Your task to perform on an android device: Show me popular videos on Youtube Image 0: 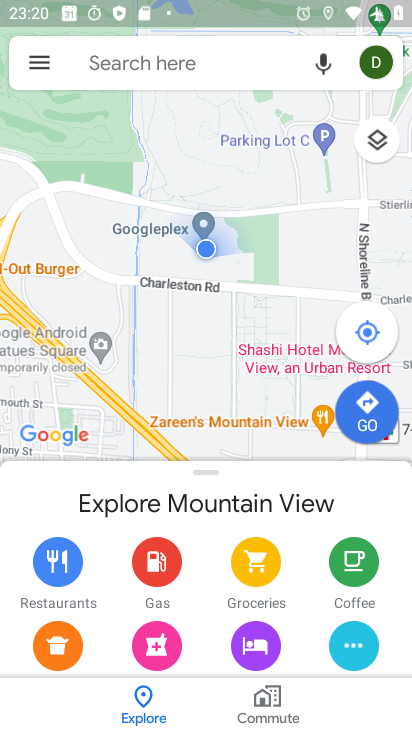
Step 0: press home button
Your task to perform on an android device: Show me popular videos on Youtube Image 1: 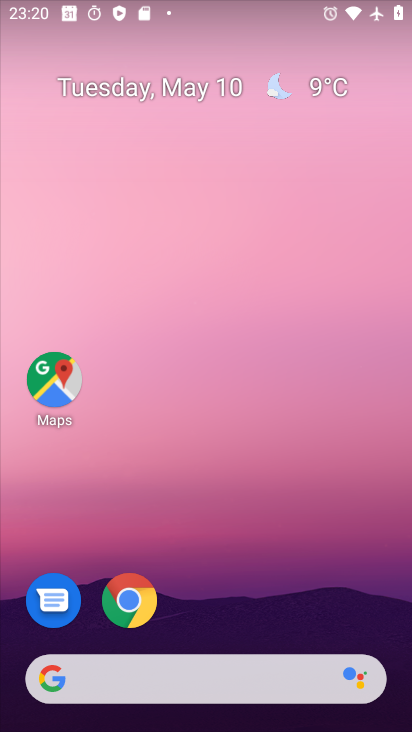
Step 1: drag from (318, 512) to (309, 30)
Your task to perform on an android device: Show me popular videos on Youtube Image 2: 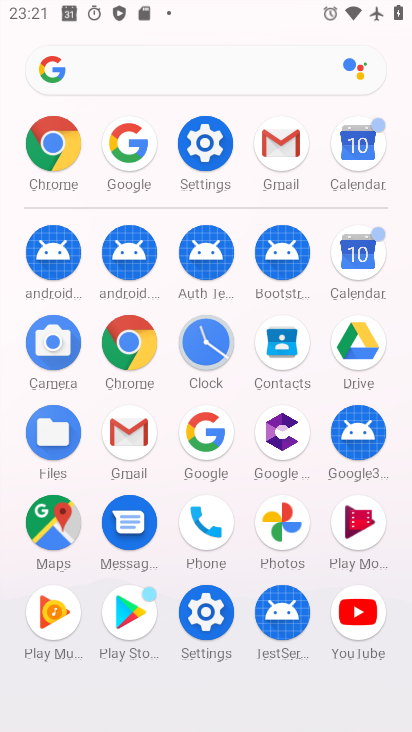
Step 2: click (360, 604)
Your task to perform on an android device: Show me popular videos on Youtube Image 3: 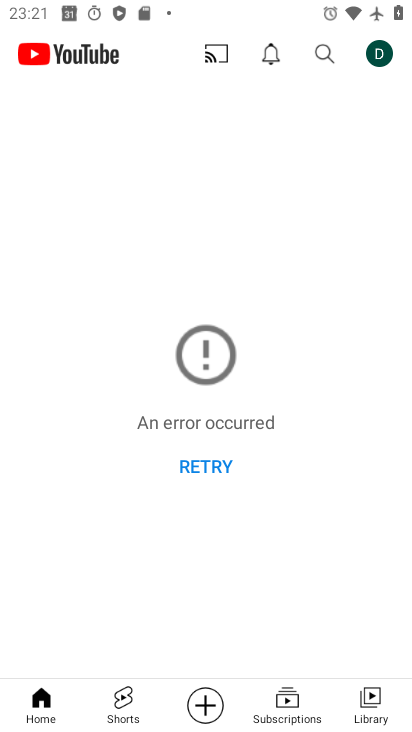
Step 3: click (342, 52)
Your task to perform on an android device: Show me popular videos on Youtube Image 4: 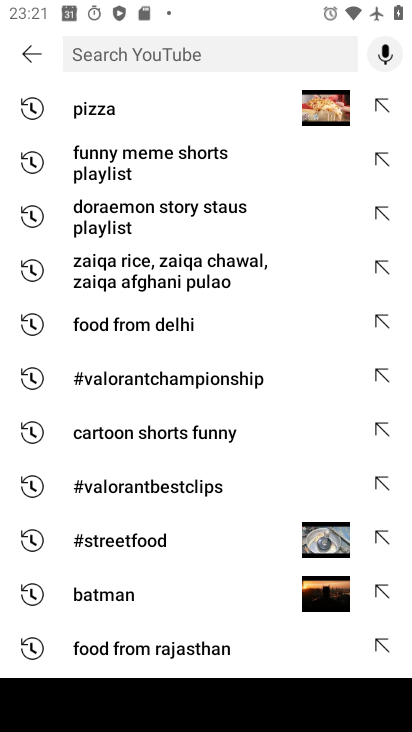
Step 4: type "popular videos"
Your task to perform on an android device: Show me popular videos on Youtube Image 5: 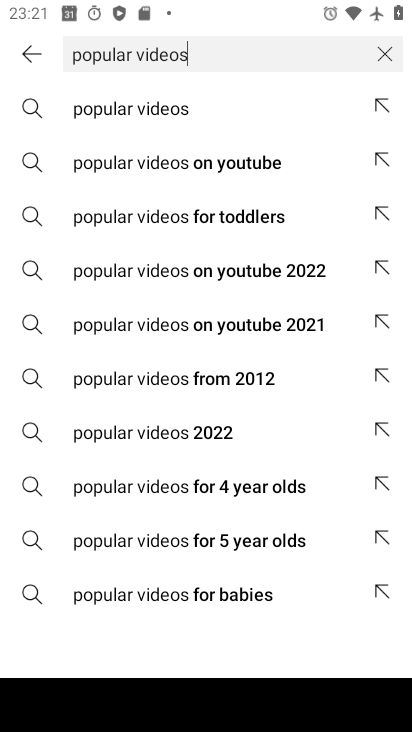
Step 5: click (173, 110)
Your task to perform on an android device: Show me popular videos on Youtube Image 6: 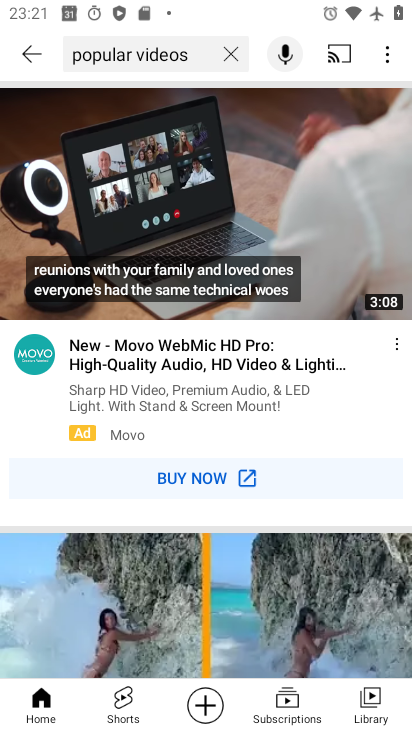
Step 6: task complete